Your task to perform on an android device: remove spam from my inbox in the gmail app Image 0: 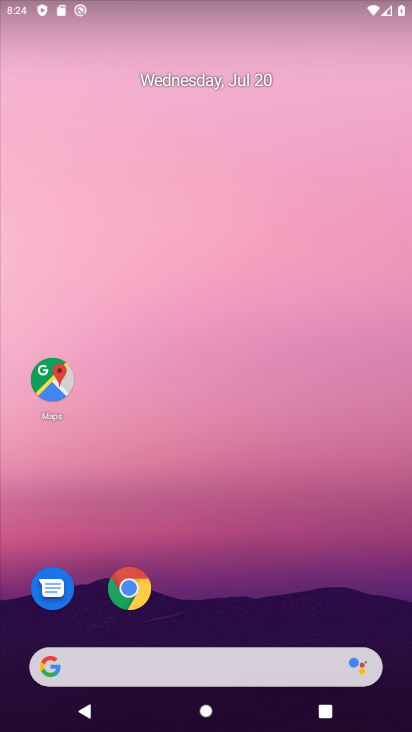
Step 0: drag from (280, 632) to (198, 117)
Your task to perform on an android device: remove spam from my inbox in the gmail app Image 1: 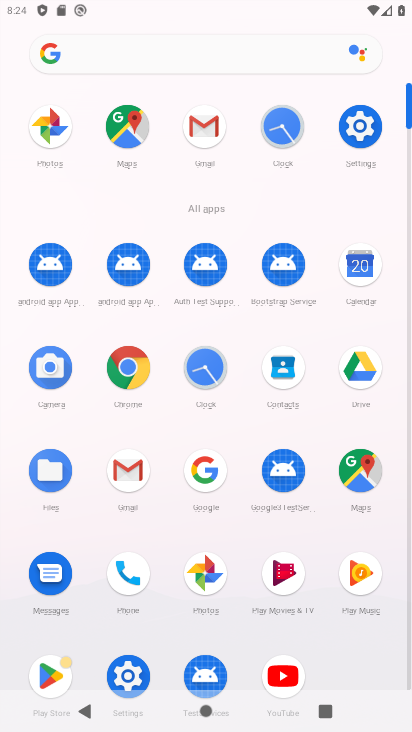
Step 1: click (126, 462)
Your task to perform on an android device: remove spam from my inbox in the gmail app Image 2: 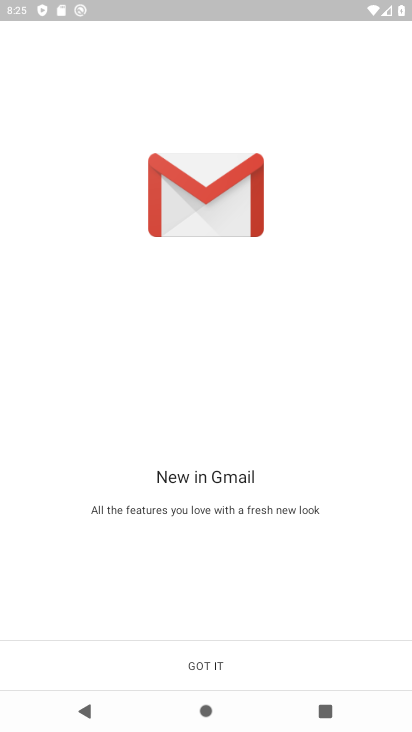
Step 2: click (231, 644)
Your task to perform on an android device: remove spam from my inbox in the gmail app Image 3: 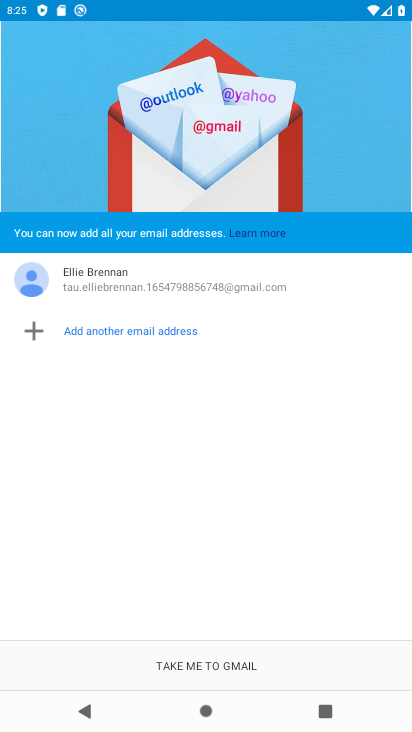
Step 3: click (228, 657)
Your task to perform on an android device: remove spam from my inbox in the gmail app Image 4: 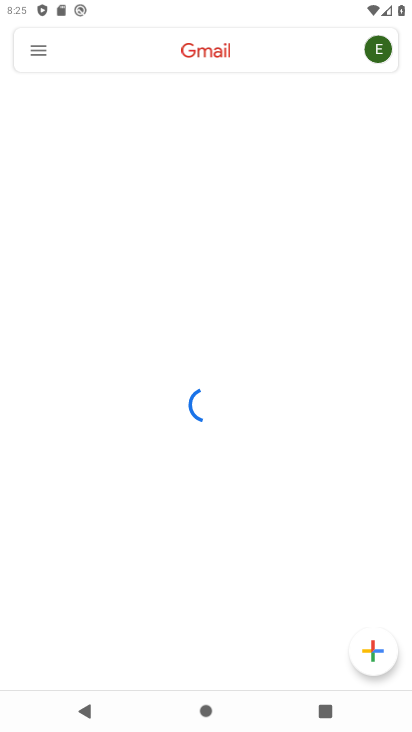
Step 4: task complete